Your task to perform on an android device: Go to Google maps Image 0: 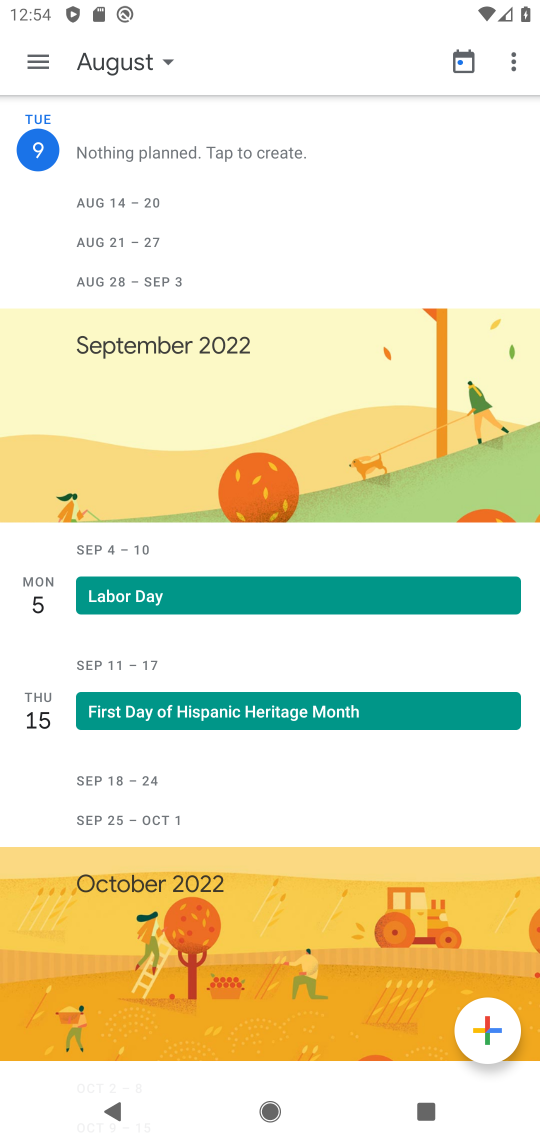
Step 0: press home button
Your task to perform on an android device: Go to Google maps Image 1: 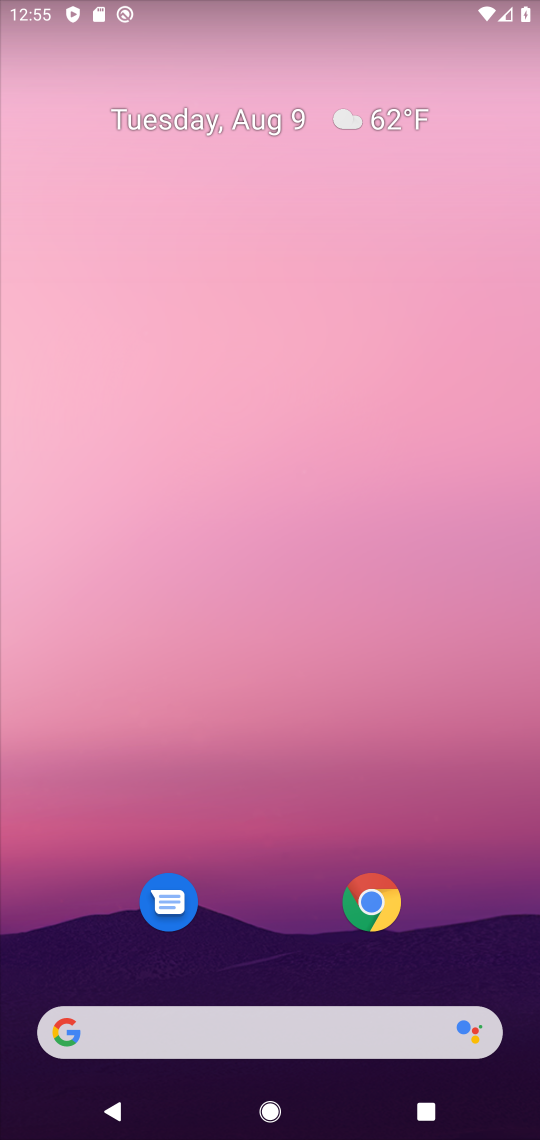
Step 1: drag from (276, 1023) to (146, 290)
Your task to perform on an android device: Go to Google maps Image 2: 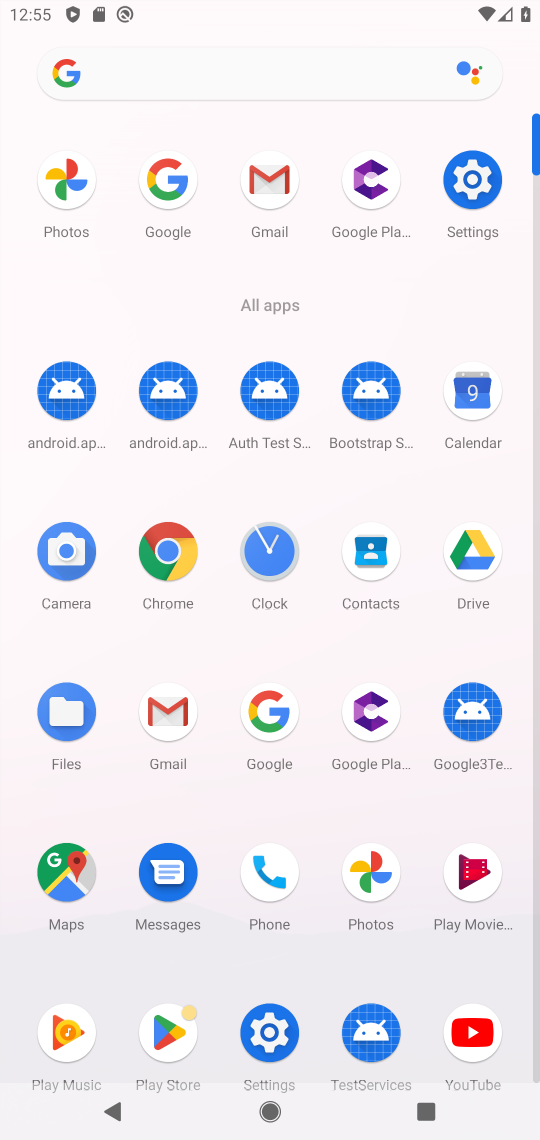
Step 2: click (67, 882)
Your task to perform on an android device: Go to Google maps Image 3: 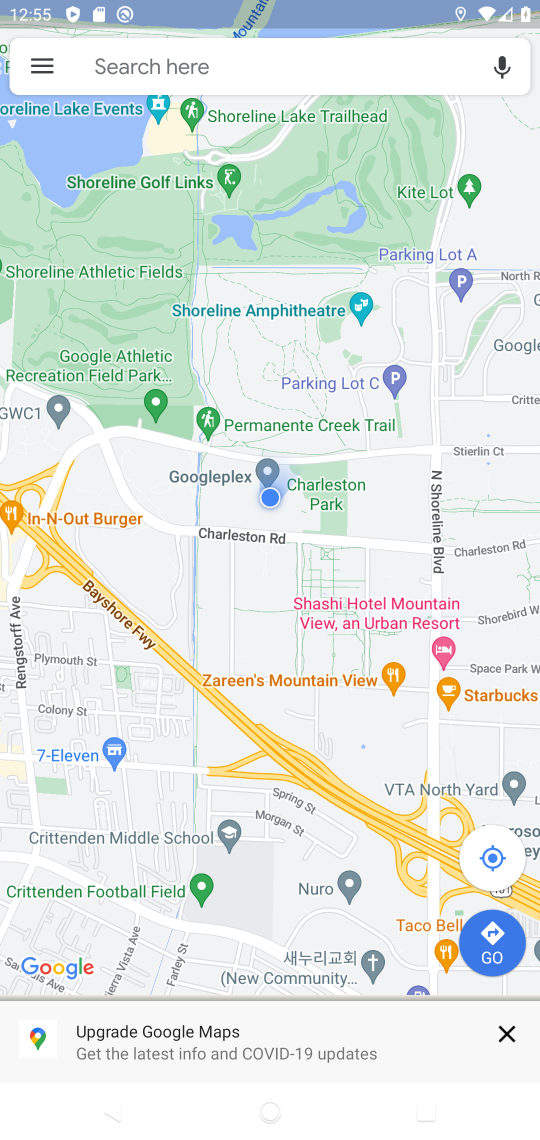
Step 3: task complete